Your task to perform on an android device: When is my next meeting? Image 0: 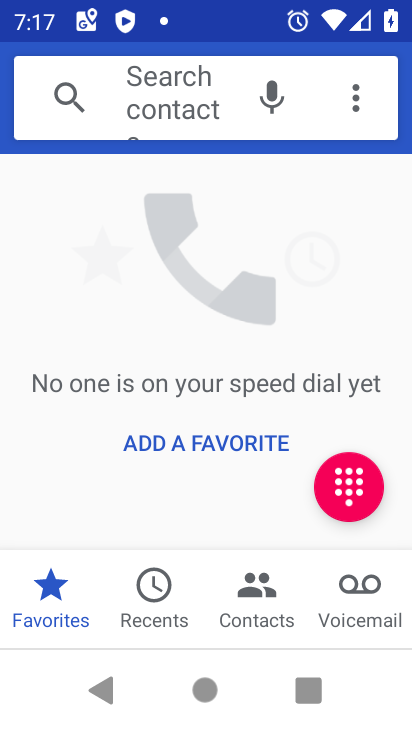
Step 0: press home button
Your task to perform on an android device: When is my next meeting? Image 1: 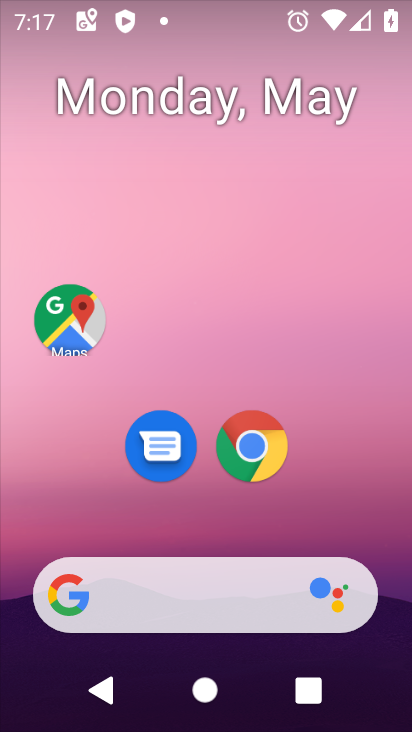
Step 1: drag from (336, 511) to (180, 69)
Your task to perform on an android device: When is my next meeting? Image 2: 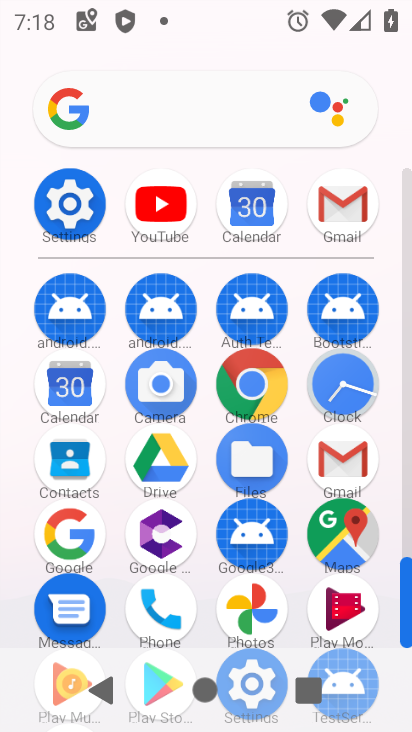
Step 2: click (67, 398)
Your task to perform on an android device: When is my next meeting? Image 3: 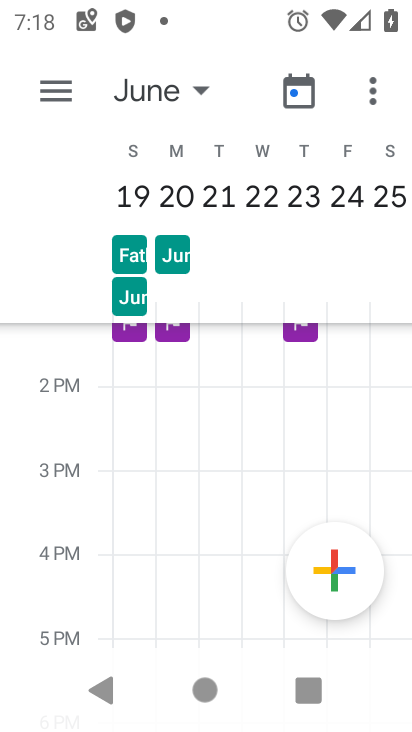
Step 3: click (198, 95)
Your task to perform on an android device: When is my next meeting? Image 4: 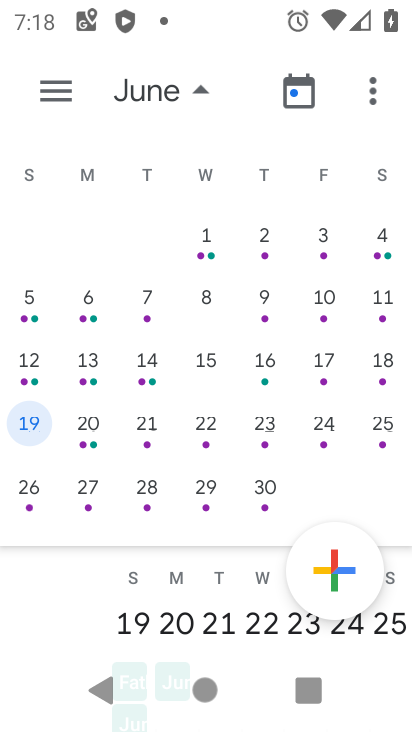
Step 4: drag from (37, 307) to (407, 550)
Your task to perform on an android device: When is my next meeting? Image 5: 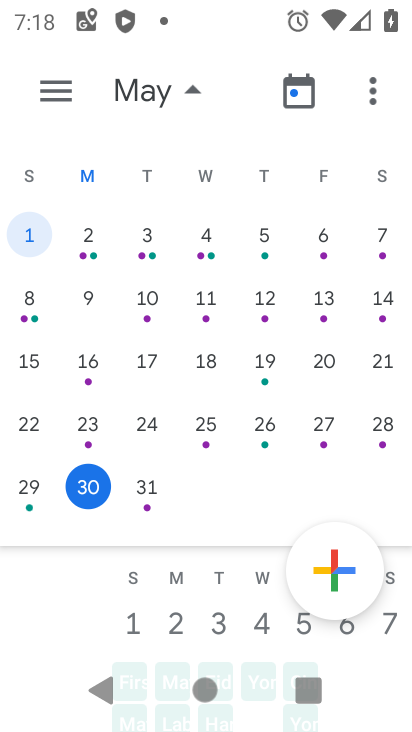
Step 5: click (97, 490)
Your task to perform on an android device: When is my next meeting? Image 6: 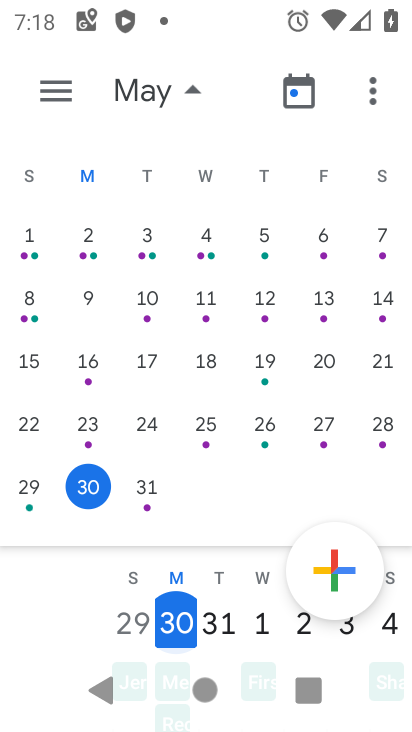
Step 6: task complete